Your task to perform on an android device: clear history in the chrome app Image 0: 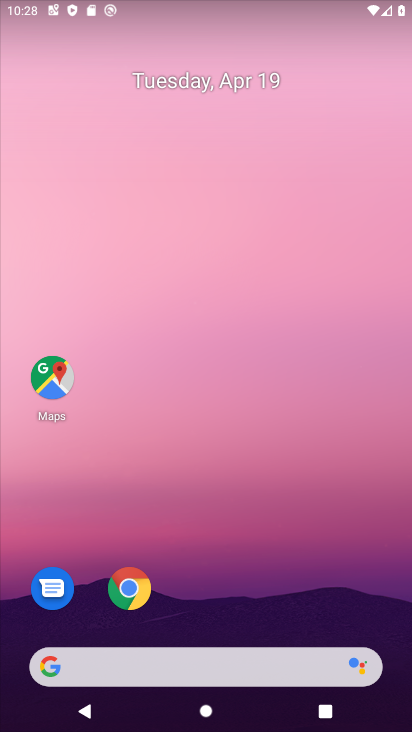
Step 0: click (137, 582)
Your task to perform on an android device: clear history in the chrome app Image 1: 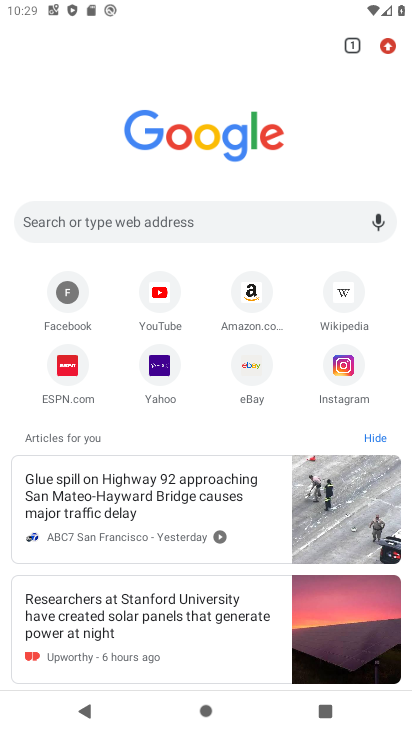
Step 1: click (387, 43)
Your task to perform on an android device: clear history in the chrome app Image 2: 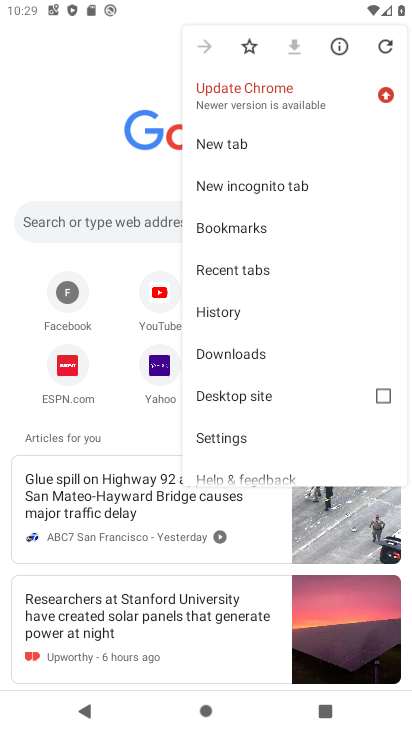
Step 2: click (220, 449)
Your task to perform on an android device: clear history in the chrome app Image 3: 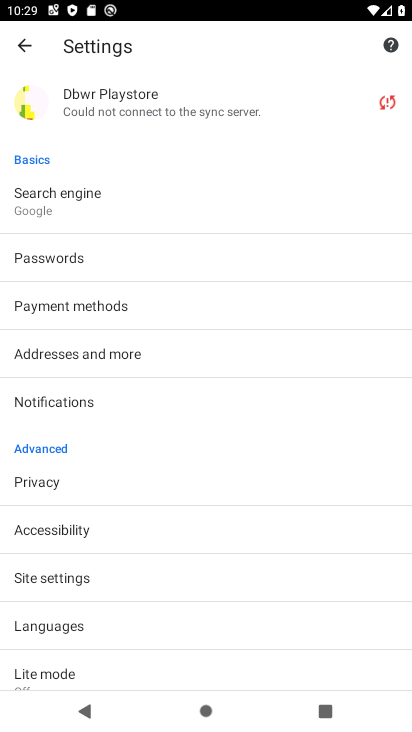
Step 3: click (28, 45)
Your task to perform on an android device: clear history in the chrome app Image 4: 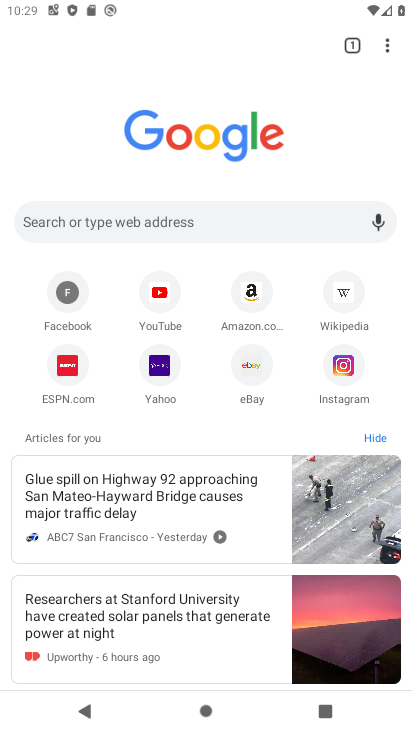
Step 4: click (385, 35)
Your task to perform on an android device: clear history in the chrome app Image 5: 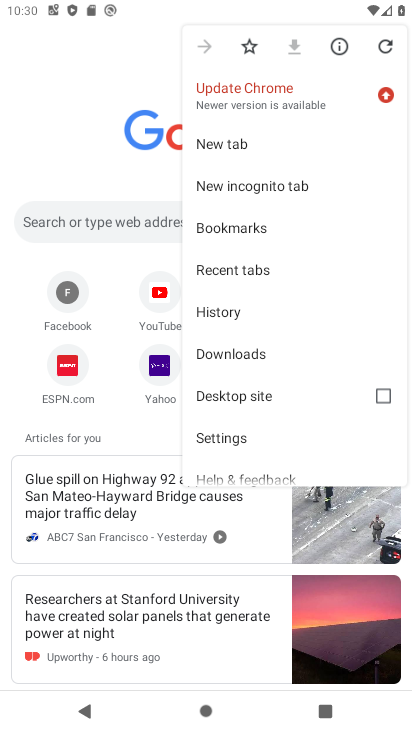
Step 5: click (279, 311)
Your task to perform on an android device: clear history in the chrome app Image 6: 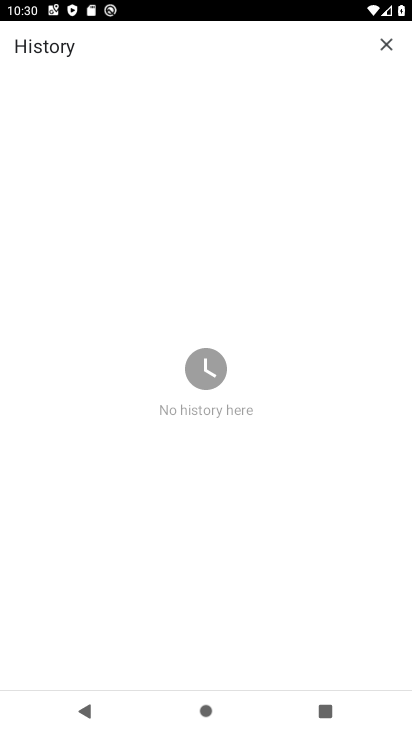
Step 6: task complete